Your task to perform on an android device: open chrome privacy settings Image 0: 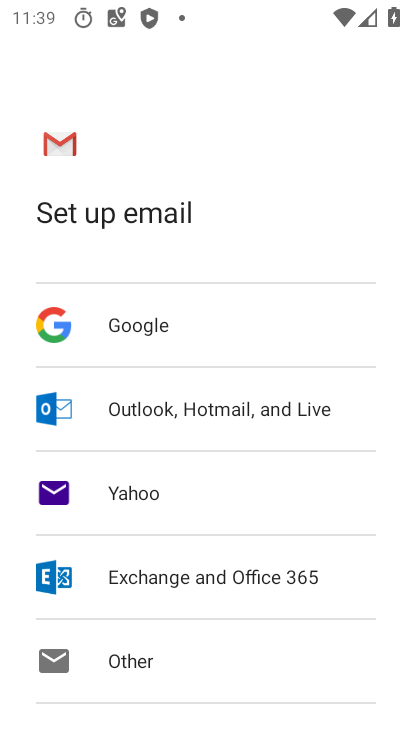
Step 0: press home button
Your task to perform on an android device: open chrome privacy settings Image 1: 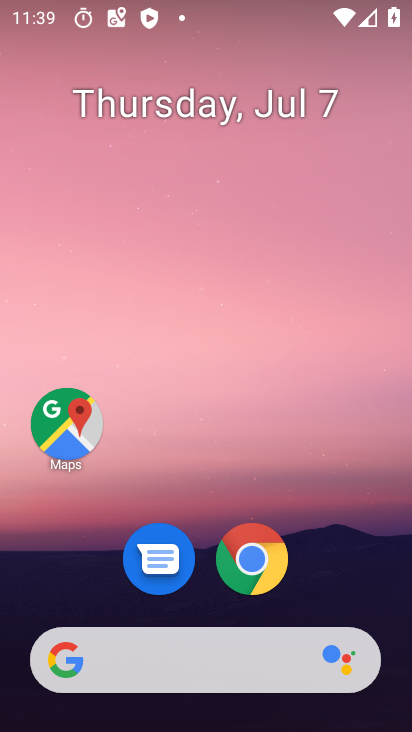
Step 1: drag from (361, 587) to (360, 139)
Your task to perform on an android device: open chrome privacy settings Image 2: 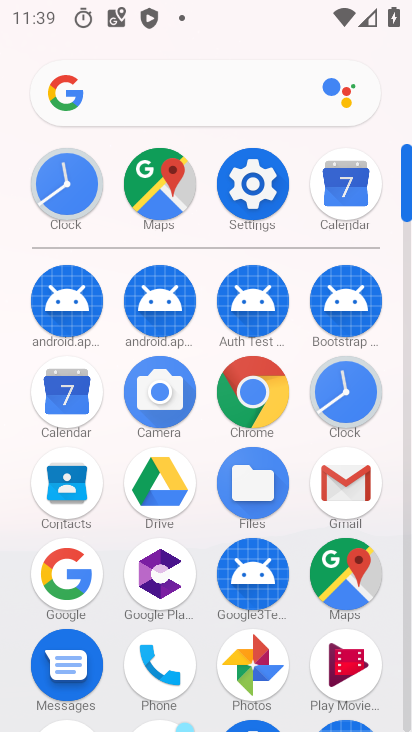
Step 2: click (257, 205)
Your task to perform on an android device: open chrome privacy settings Image 3: 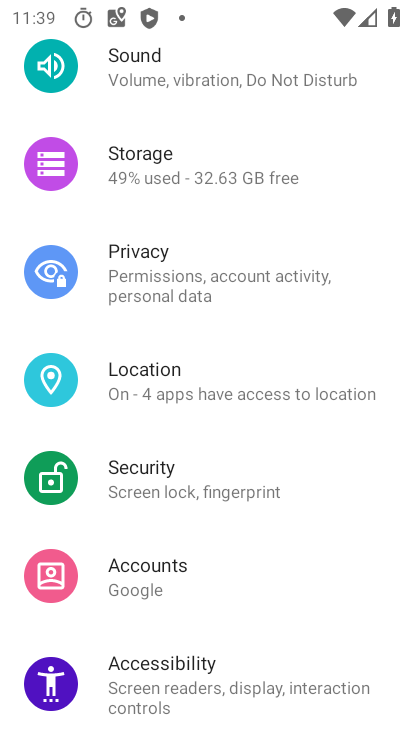
Step 3: drag from (345, 226) to (365, 400)
Your task to perform on an android device: open chrome privacy settings Image 4: 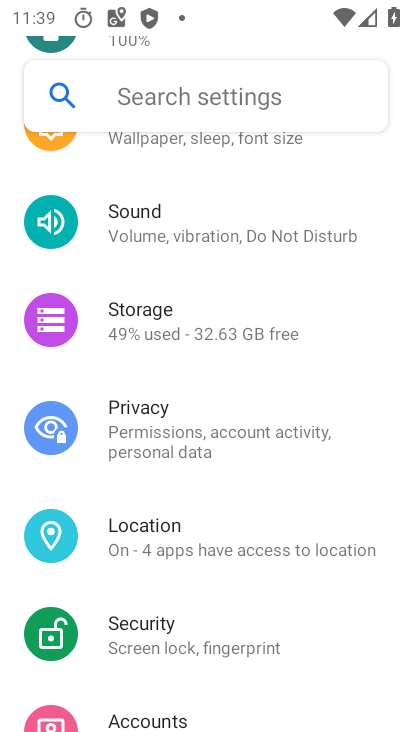
Step 4: drag from (368, 197) to (368, 398)
Your task to perform on an android device: open chrome privacy settings Image 5: 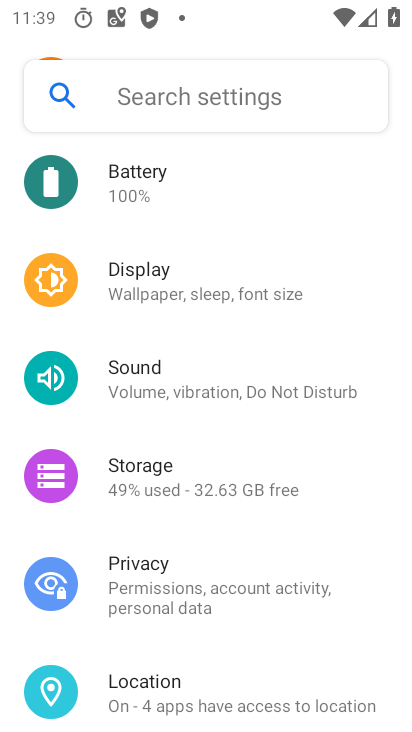
Step 5: drag from (354, 215) to (357, 452)
Your task to perform on an android device: open chrome privacy settings Image 6: 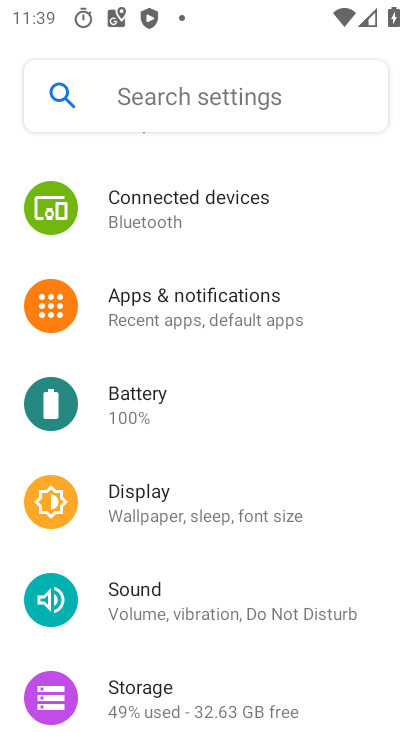
Step 6: drag from (355, 244) to (360, 469)
Your task to perform on an android device: open chrome privacy settings Image 7: 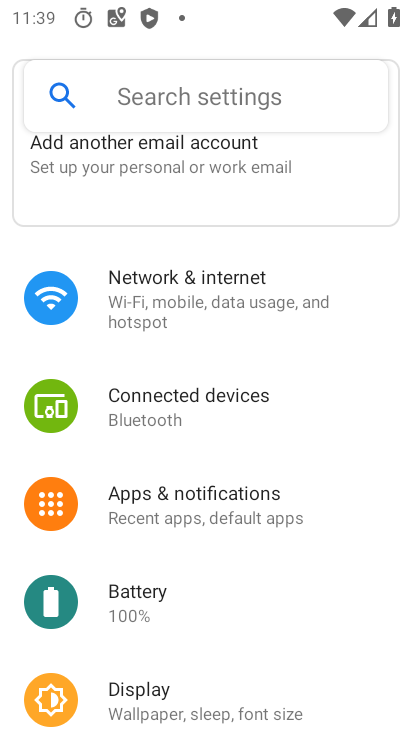
Step 7: drag from (347, 299) to (357, 533)
Your task to perform on an android device: open chrome privacy settings Image 8: 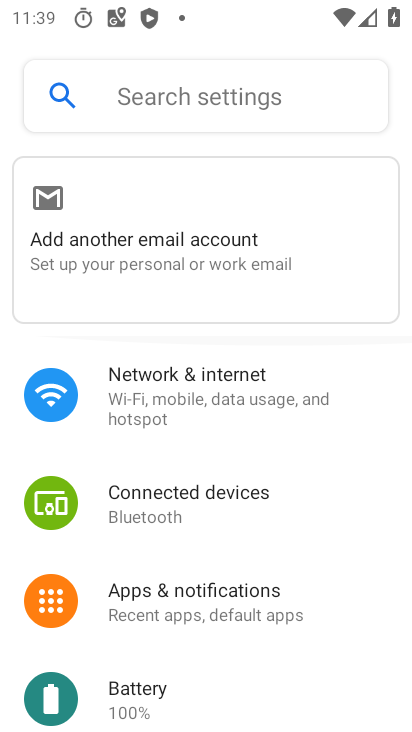
Step 8: drag from (351, 555) to (350, 348)
Your task to perform on an android device: open chrome privacy settings Image 9: 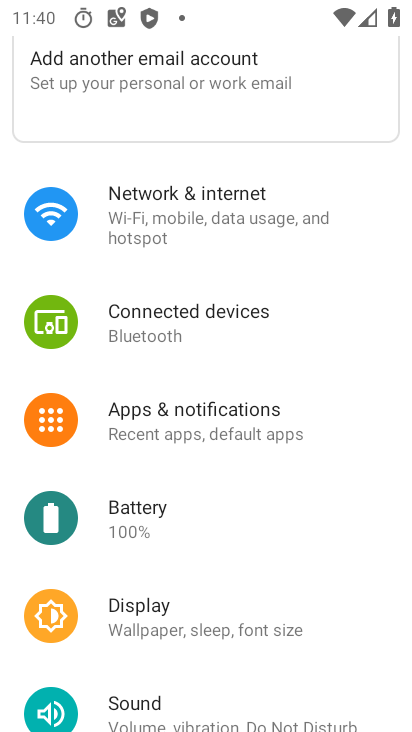
Step 9: drag from (352, 546) to (356, 353)
Your task to perform on an android device: open chrome privacy settings Image 10: 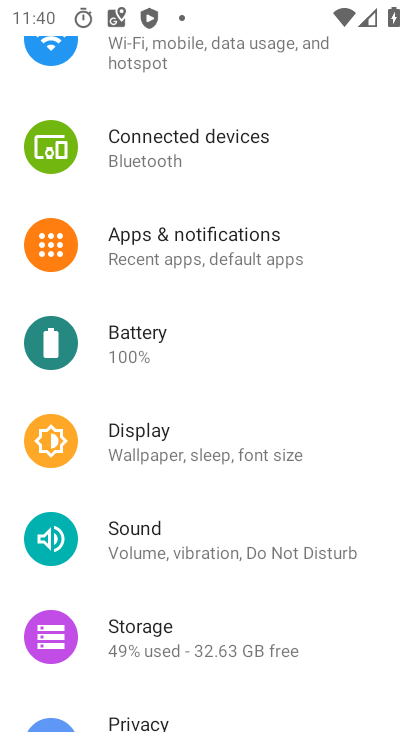
Step 10: drag from (356, 625) to (356, 390)
Your task to perform on an android device: open chrome privacy settings Image 11: 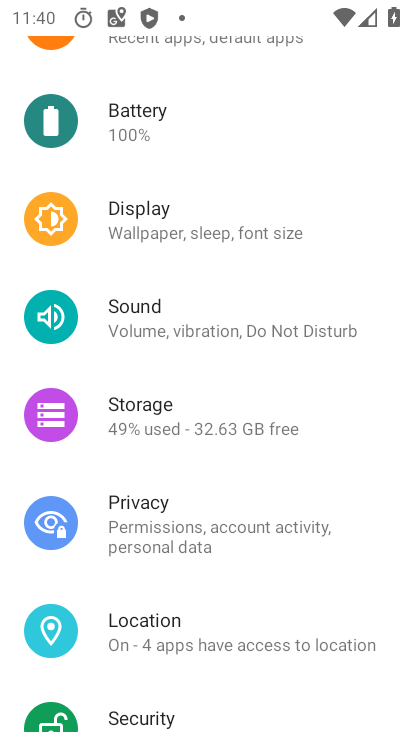
Step 11: drag from (347, 611) to (350, 331)
Your task to perform on an android device: open chrome privacy settings Image 12: 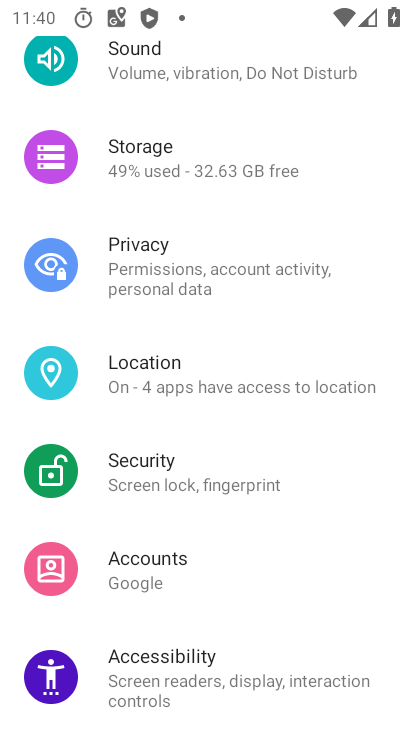
Step 12: drag from (363, 536) to (355, 345)
Your task to perform on an android device: open chrome privacy settings Image 13: 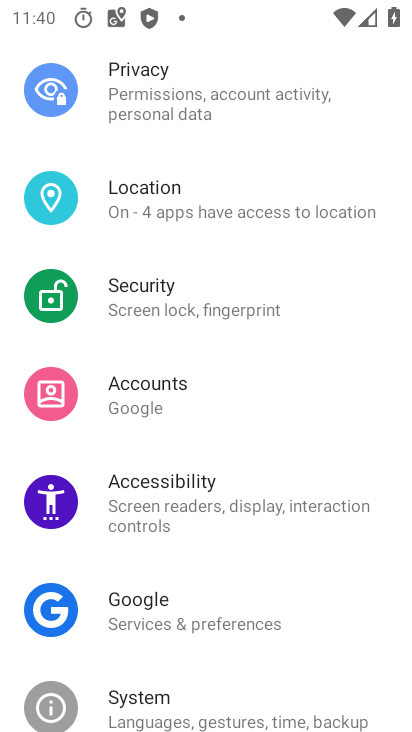
Step 13: drag from (351, 572) to (348, 326)
Your task to perform on an android device: open chrome privacy settings Image 14: 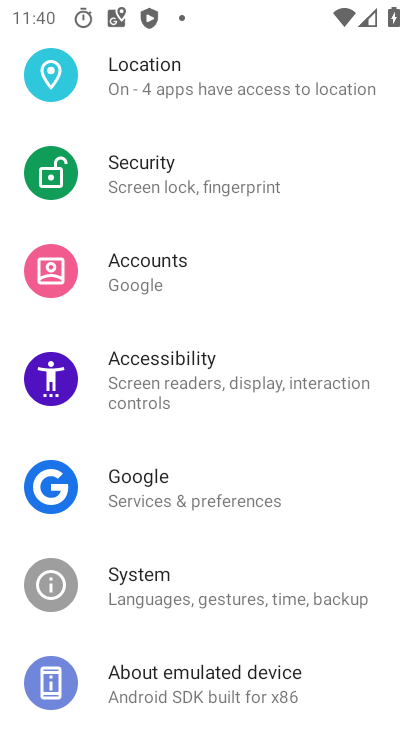
Step 14: drag from (326, 277) to (326, 472)
Your task to perform on an android device: open chrome privacy settings Image 15: 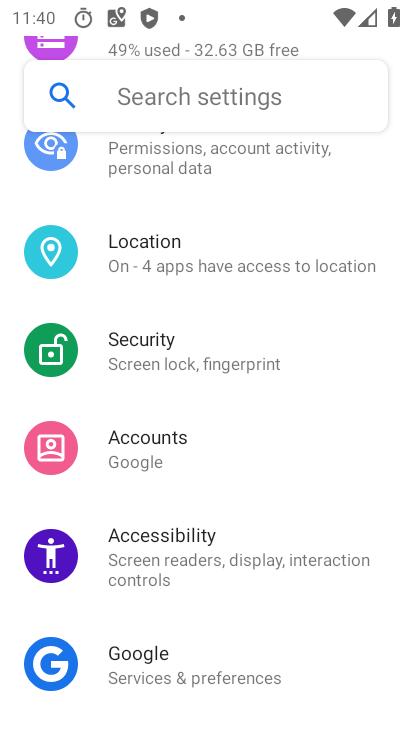
Step 15: drag from (323, 210) to (330, 457)
Your task to perform on an android device: open chrome privacy settings Image 16: 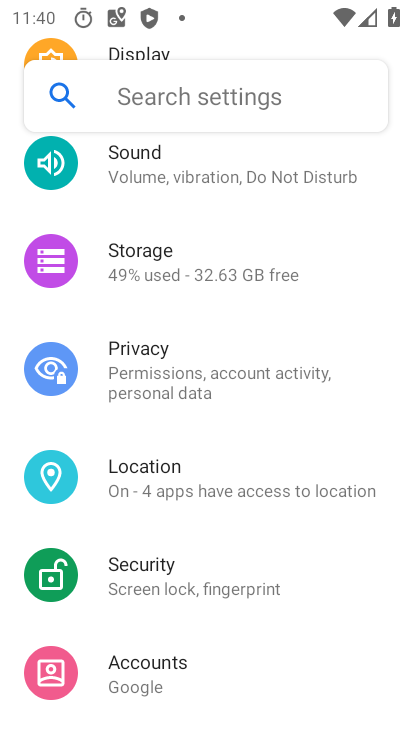
Step 16: click (210, 366)
Your task to perform on an android device: open chrome privacy settings Image 17: 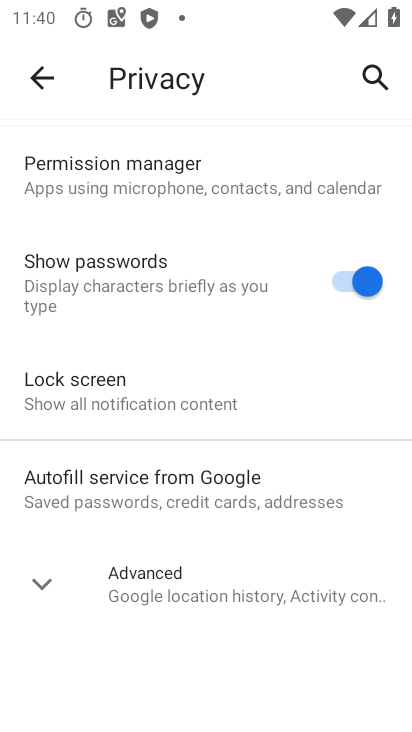
Step 17: task complete